Your task to perform on an android device: toggle notifications settings in the gmail app Image 0: 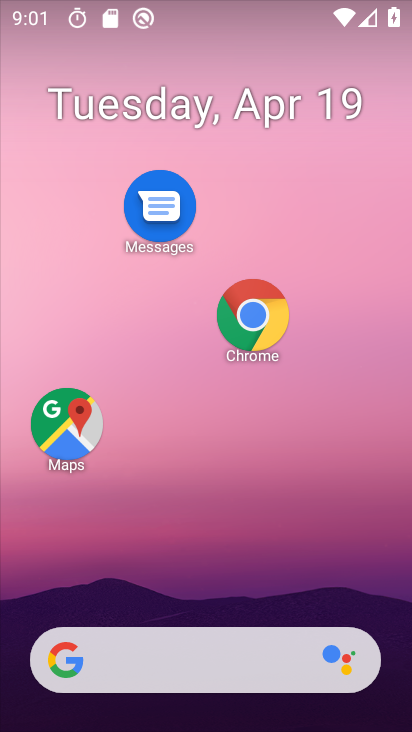
Step 0: drag from (178, 643) to (153, 184)
Your task to perform on an android device: toggle notifications settings in the gmail app Image 1: 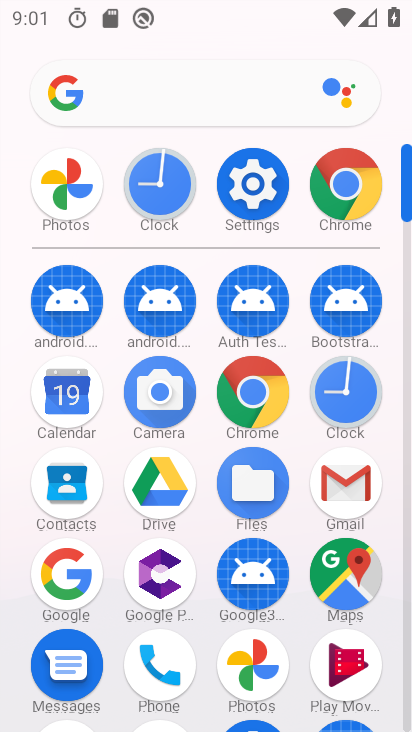
Step 1: click (345, 491)
Your task to perform on an android device: toggle notifications settings in the gmail app Image 2: 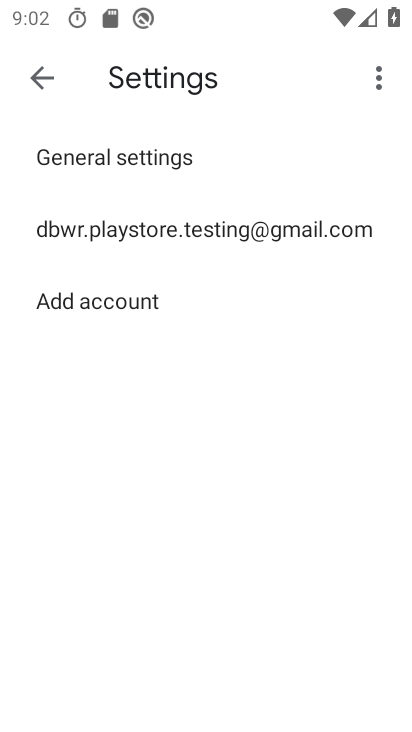
Step 2: click (177, 224)
Your task to perform on an android device: toggle notifications settings in the gmail app Image 3: 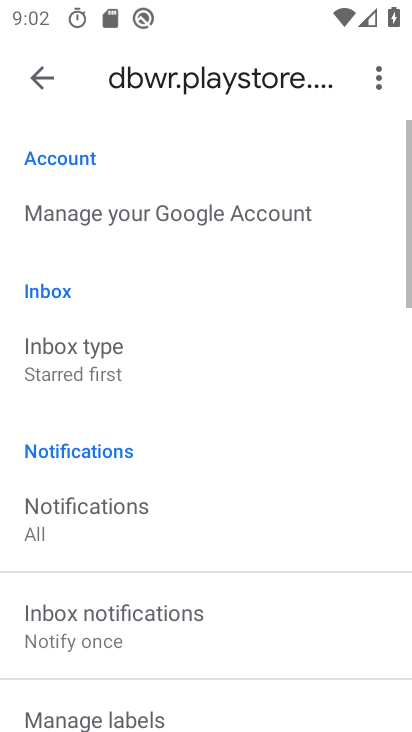
Step 3: drag from (207, 613) to (195, 162)
Your task to perform on an android device: toggle notifications settings in the gmail app Image 4: 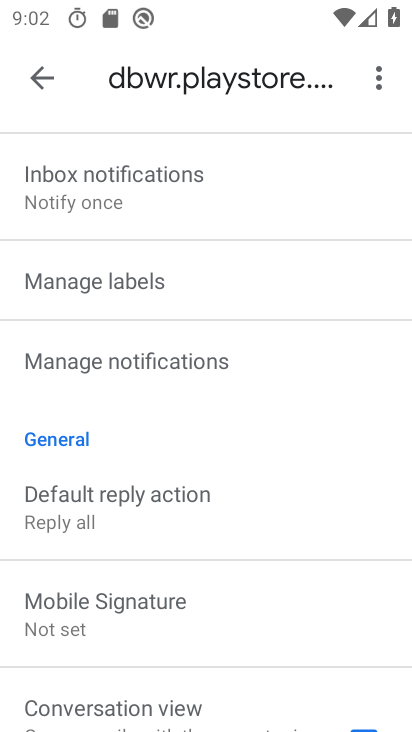
Step 4: click (167, 364)
Your task to perform on an android device: toggle notifications settings in the gmail app Image 5: 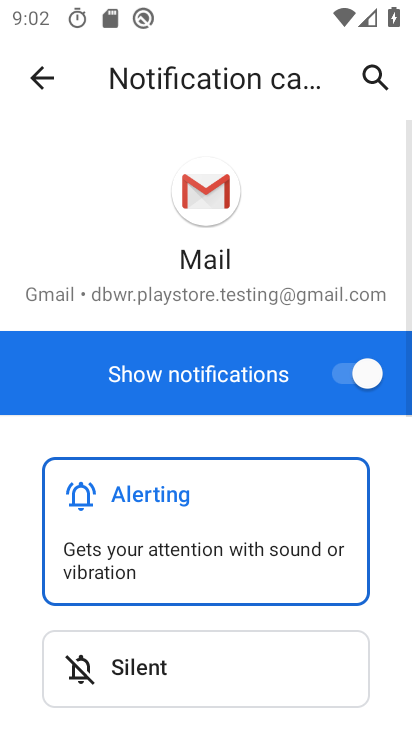
Step 5: click (356, 380)
Your task to perform on an android device: toggle notifications settings in the gmail app Image 6: 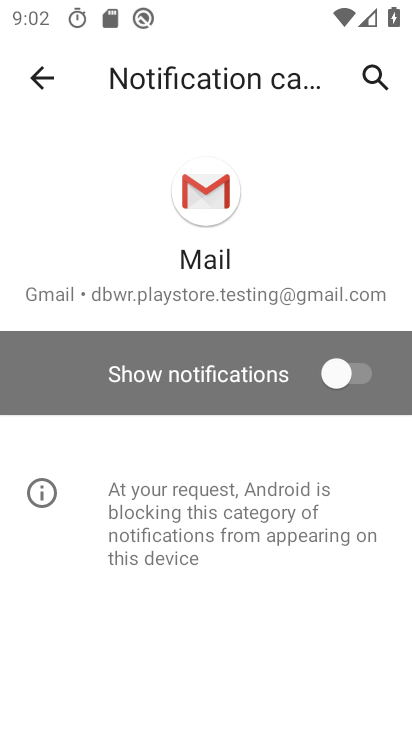
Step 6: task complete